Your task to perform on an android device: Search for vegetarian restaurants on Maps Image 0: 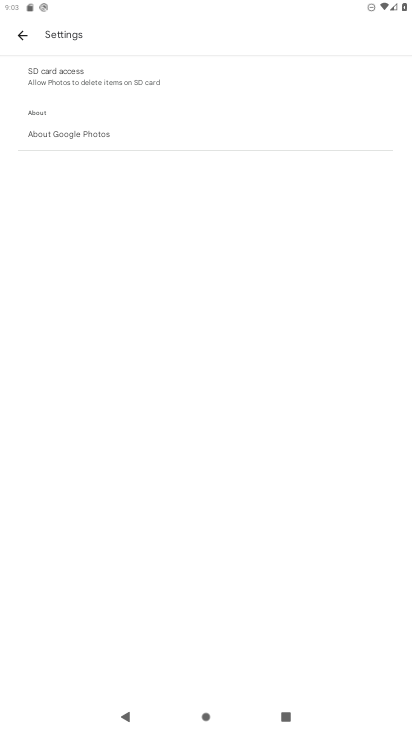
Step 0: press home button
Your task to perform on an android device: Search for vegetarian restaurants on Maps Image 1: 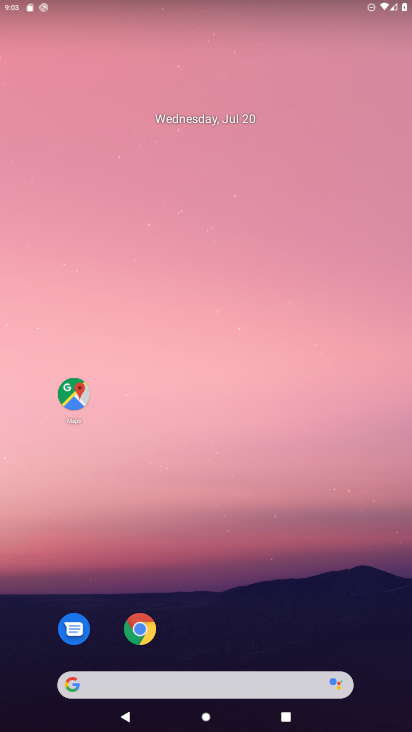
Step 1: click (73, 392)
Your task to perform on an android device: Search for vegetarian restaurants on Maps Image 2: 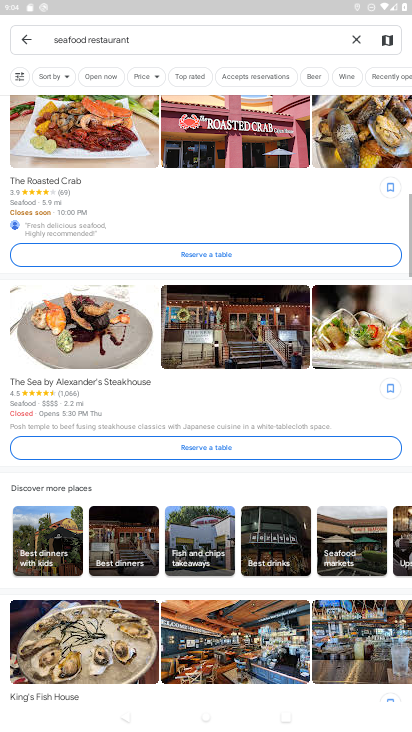
Step 2: click (354, 38)
Your task to perform on an android device: Search for vegetarian restaurants on Maps Image 3: 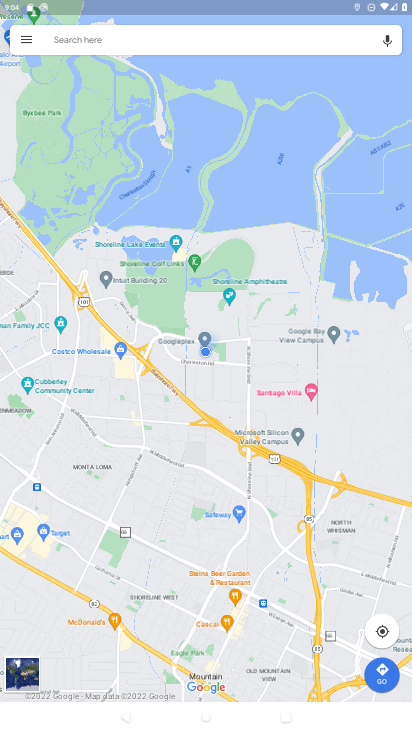
Step 3: drag from (269, 204) to (248, 330)
Your task to perform on an android device: Search for vegetarian restaurants on Maps Image 4: 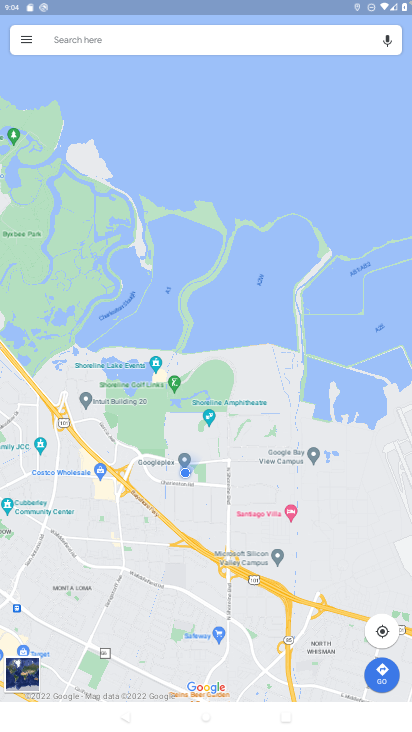
Step 4: click (97, 38)
Your task to perform on an android device: Search for vegetarian restaurants on Maps Image 5: 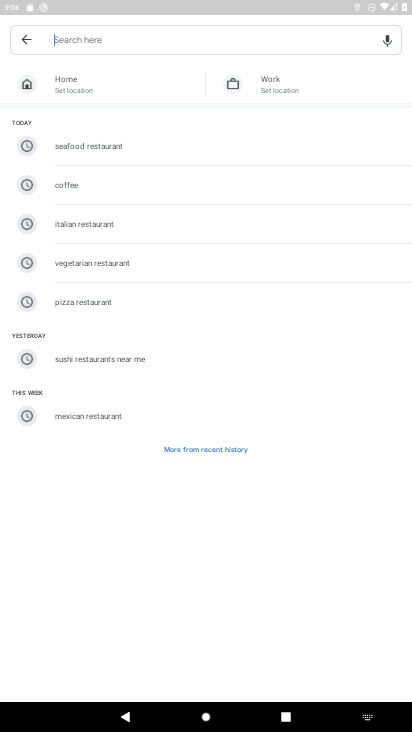
Step 5: type "vegetarian restaurants"
Your task to perform on an android device: Search for vegetarian restaurants on Maps Image 6: 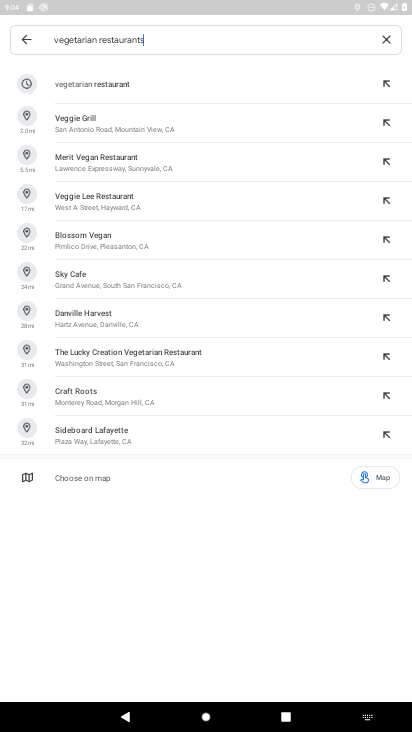
Step 6: click (60, 83)
Your task to perform on an android device: Search for vegetarian restaurants on Maps Image 7: 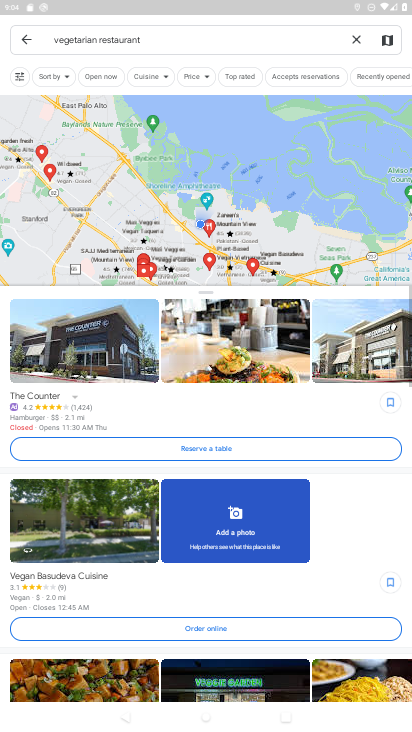
Step 7: task complete